Your task to perform on an android device: Turn on the flashlight Image 0: 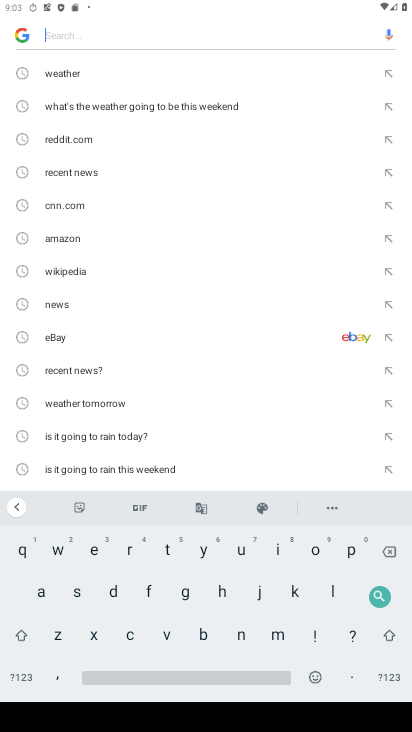
Step 0: press home button
Your task to perform on an android device: Turn on the flashlight Image 1: 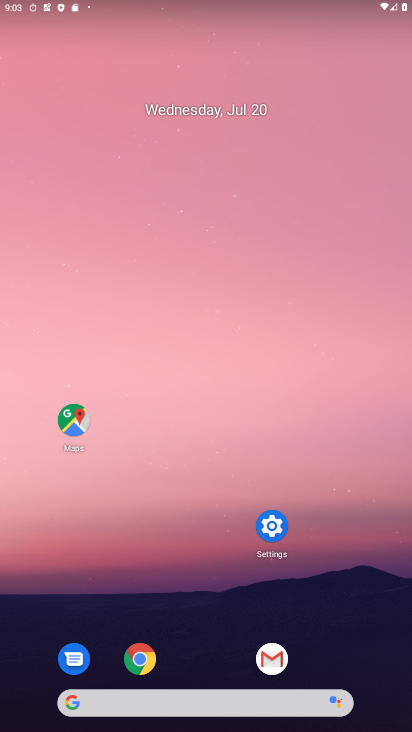
Step 1: click (277, 523)
Your task to perform on an android device: Turn on the flashlight Image 2: 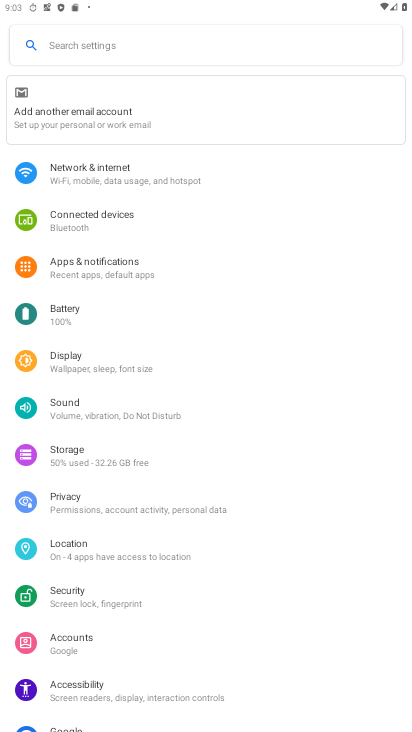
Step 2: click (96, 47)
Your task to perform on an android device: Turn on the flashlight Image 3: 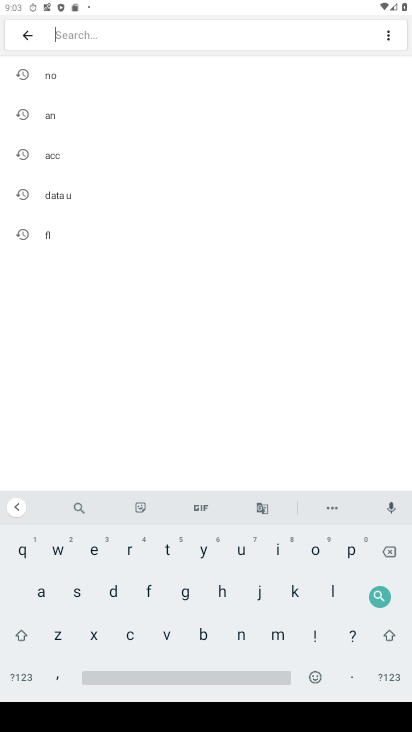
Step 3: click (144, 590)
Your task to perform on an android device: Turn on the flashlight Image 4: 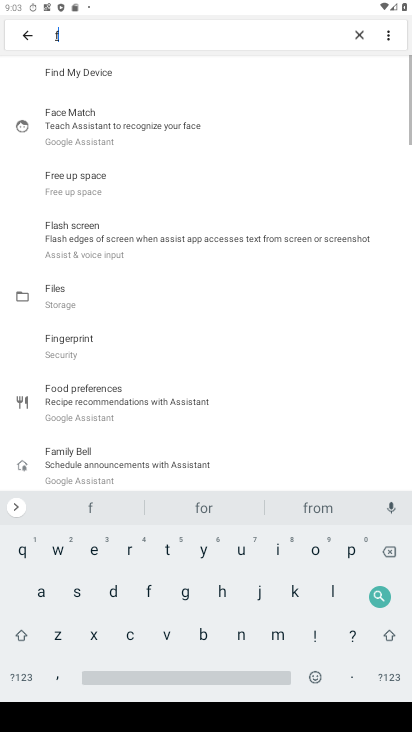
Step 4: click (329, 583)
Your task to perform on an android device: Turn on the flashlight Image 5: 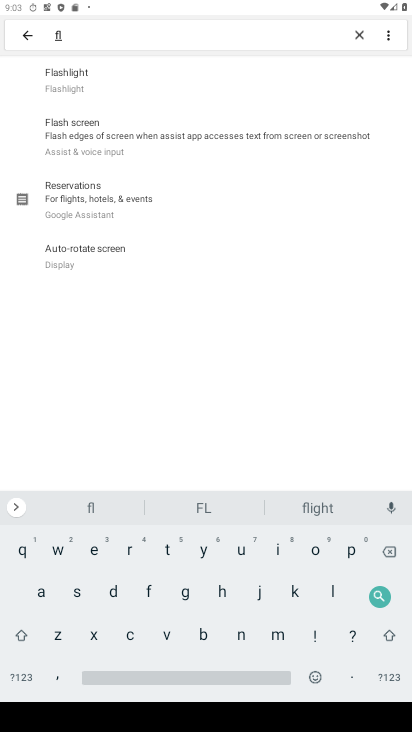
Step 5: click (111, 83)
Your task to perform on an android device: Turn on the flashlight Image 6: 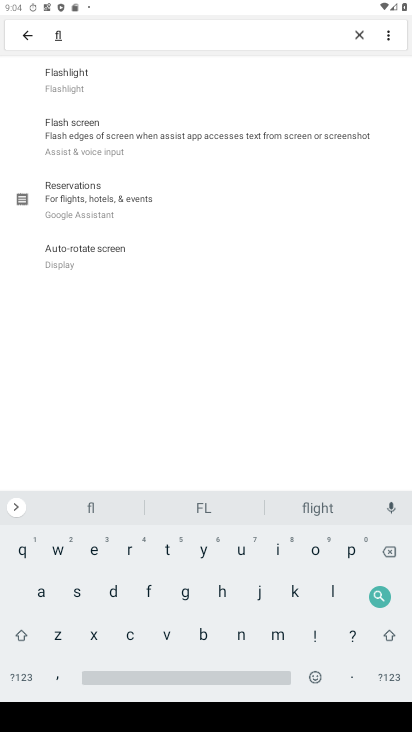
Step 6: task complete